Your task to perform on an android device: Open Google Chrome Image 0: 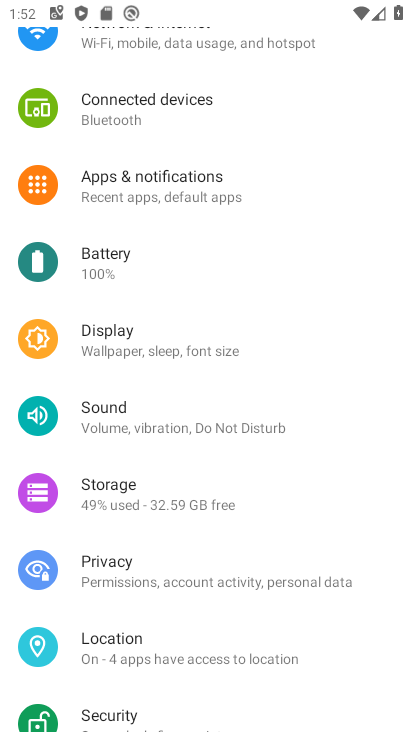
Step 0: press home button
Your task to perform on an android device: Open Google Chrome Image 1: 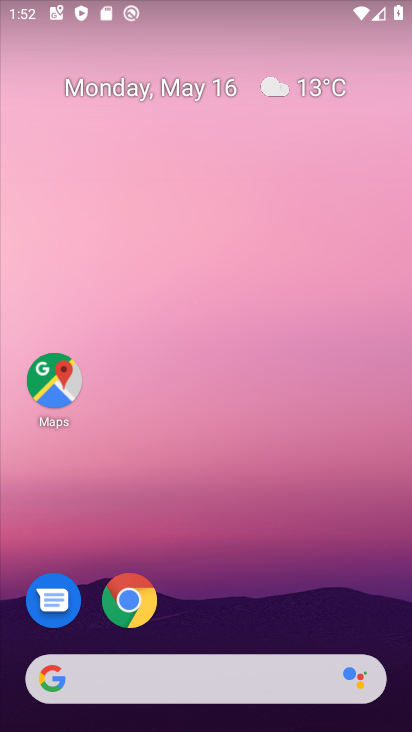
Step 1: click (134, 613)
Your task to perform on an android device: Open Google Chrome Image 2: 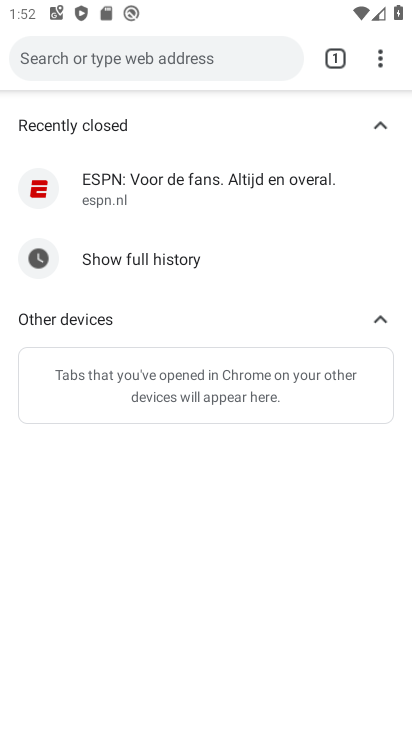
Step 2: task complete